Your task to perform on an android device: manage bookmarks in the chrome app Image 0: 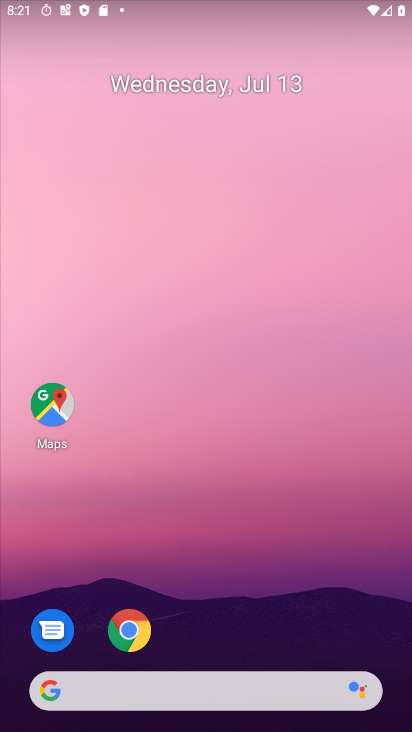
Step 0: drag from (335, 601) to (344, 84)
Your task to perform on an android device: manage bookmarks in the chrome app Image 1: 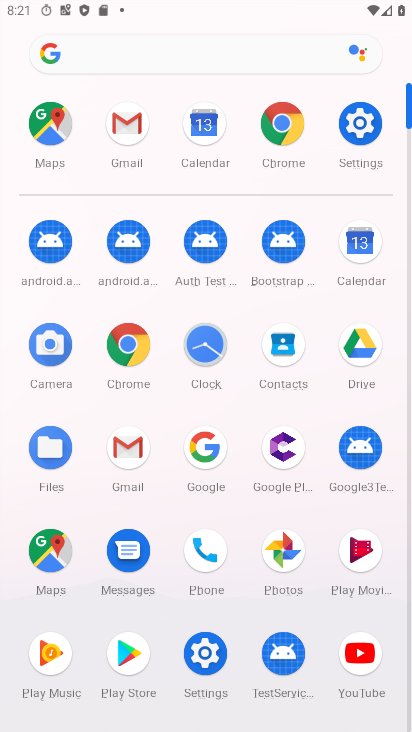
Step 1: click (145, 343)
Your task to perform on an android device: manage bookmarks in the chrome app Image 2: 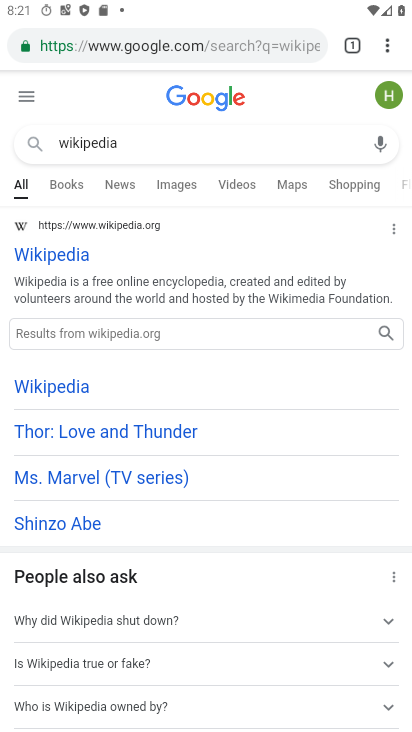
Step 2: click (388, 52)
Your task to perform on an android device: manage bookmarks in the chrome app Image 3: 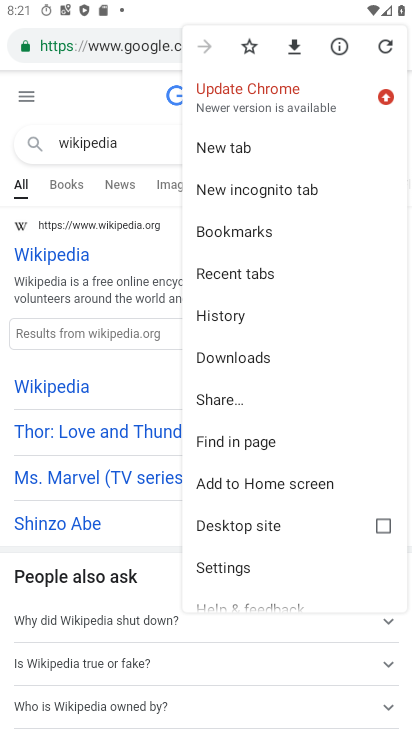
Step 3: click (293, 239)
Your task to perform on an android device: manage bookmarks in the chrome app Image 4: 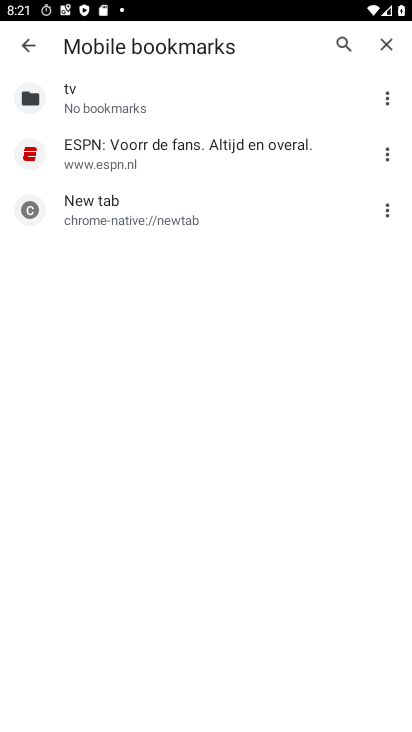
Step 4: click (392, 156)
Your task to perform on an android device: manage bookmarks in the chrome app Image 5: 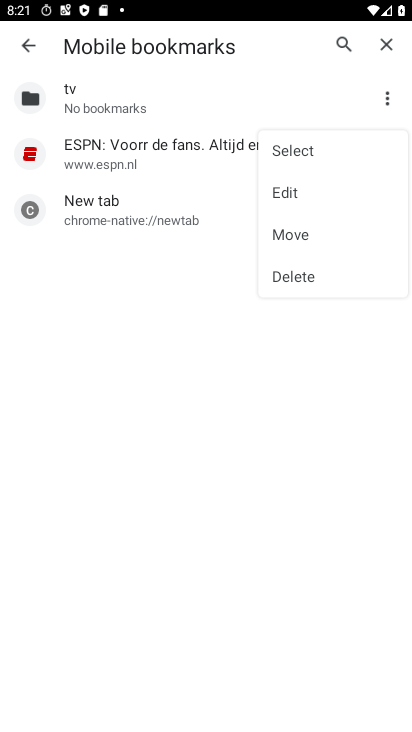
Step 5: click (306, 195)
Your task to perform on an android device: manage bookmarks in the chrome app Image 6: 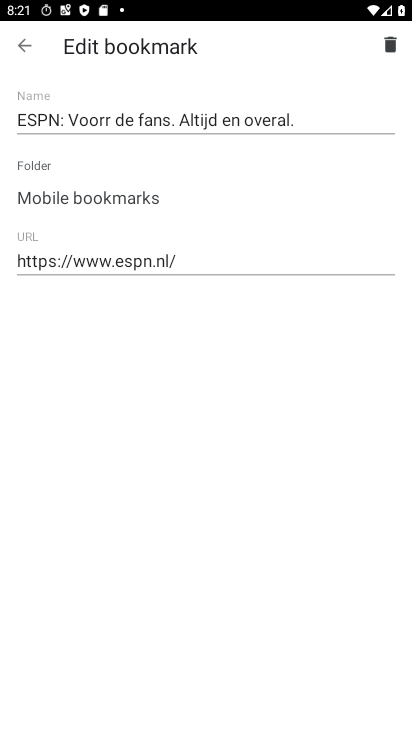
Step 6: click (299, 111)
Your task to perform on an android device: manage bookmarks in the chrome app Image 7: 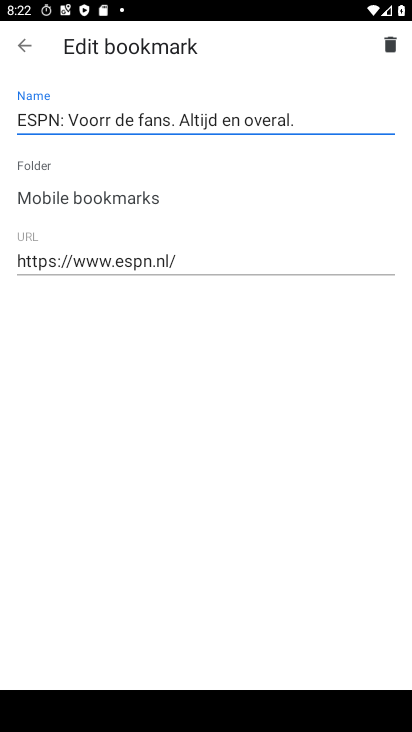
Step 7: type "...."
Your task to perform on an android device: manage bookmarks in the chrome app Image 8: 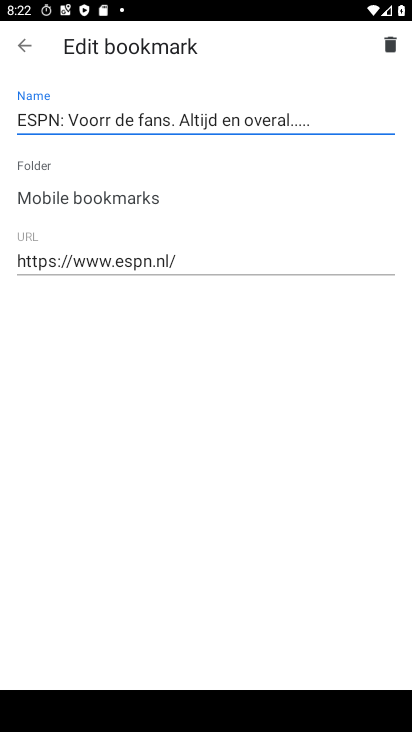
Step 8: click (29, 44)
Your task to perform on an android device: manage bookmarks in the chrome app Image 9: 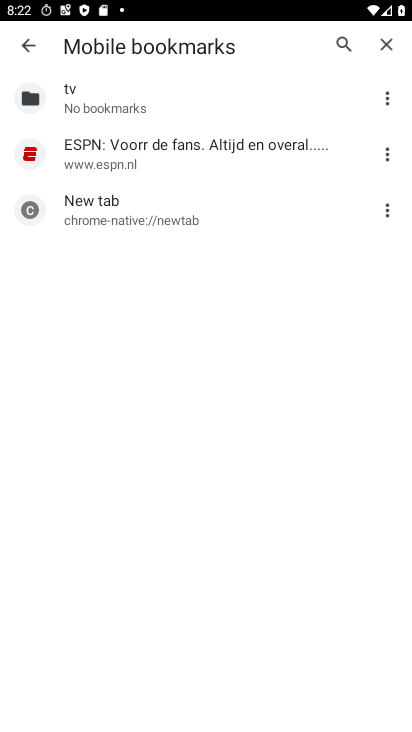
Step 9: task complete